Your task to perform on an android device: turn off improve location accuracy Image 0: 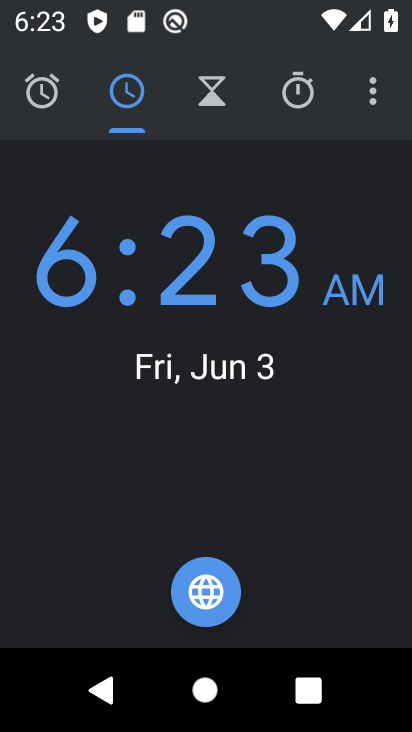
Step 0: press home button
Your task to perform on an android device: turn off improve location accuracy Image 1: 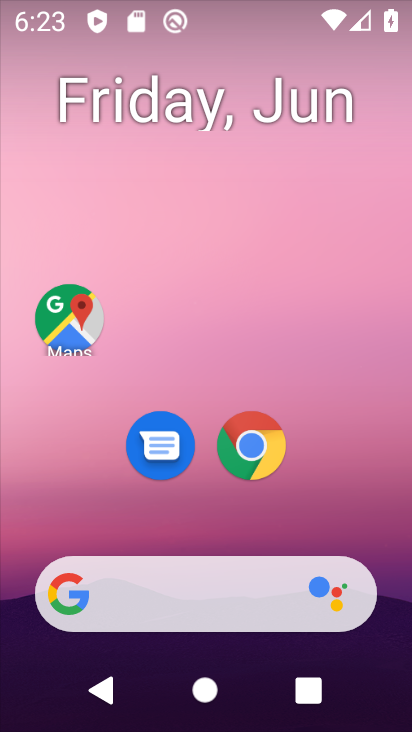
Step 1: drag from (209, 532) to (223, 45)
Your task to perform on an android device: turn off improve location accuracy Image 2: 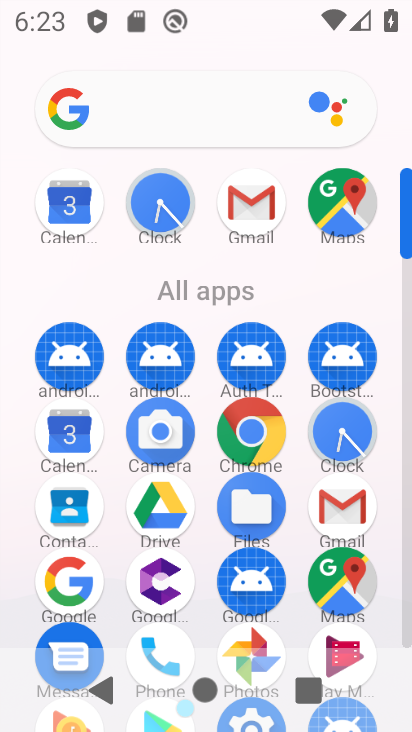
Step 2: click (349, 285)
Your task to perform on an android device: turn off improve location accuracy Image 3: 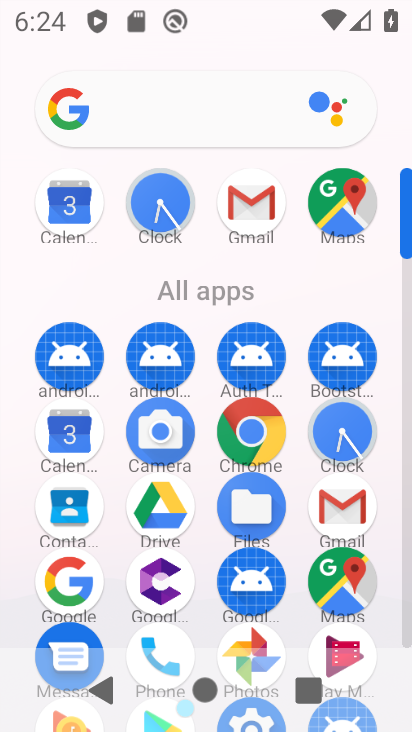
Step 3: drag from (277, 592) to (261, 372)
Your task to perform on an android device: turn off improve location accuracy Image 4: 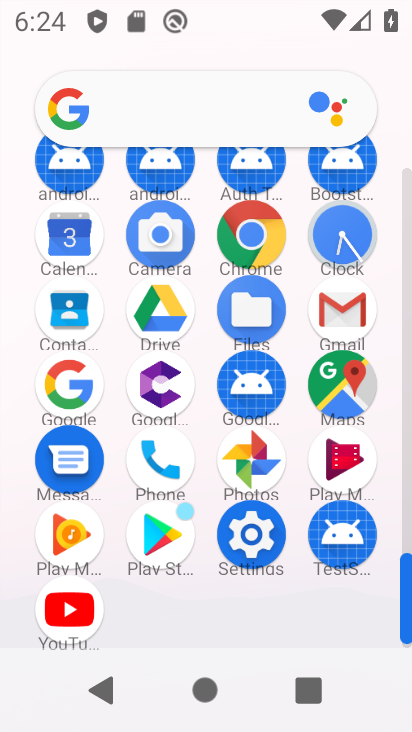
Step 4: click (248, 519)
Your task to perform on an android device: turn off improve location accuracy Image 5: 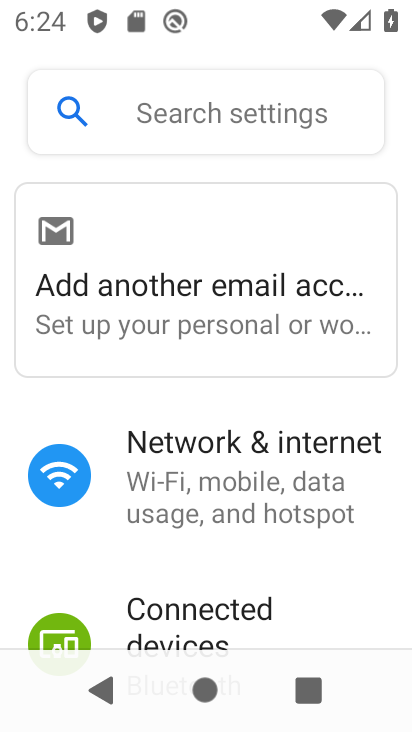
Step 5: drag from (251, 573) to (253, 198)
Your task to perform on an android device: turn off improve location accuracy Image 6: 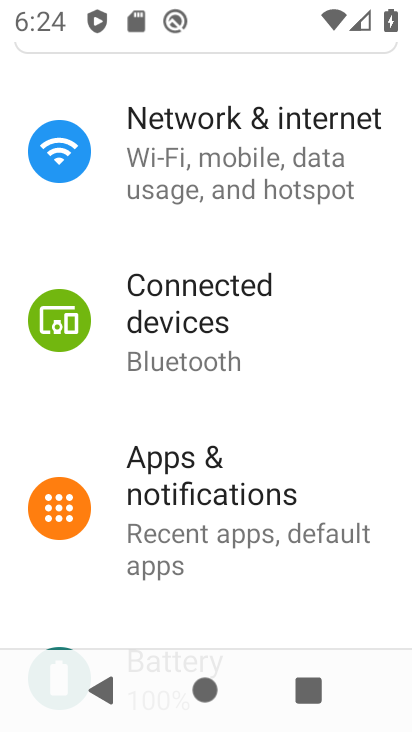
Step 6: drag from (219, 463) to (212, 173)
Your task to perform on an android device: turn off improve location accuracy Image 7: 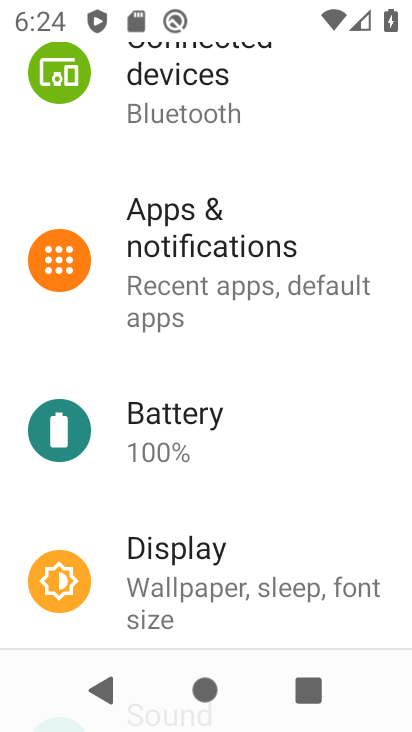
Step 7: drag from (189, 547) to (187, 409)
Your task to perform on an android device: turn off improve location accuracy Image 8: 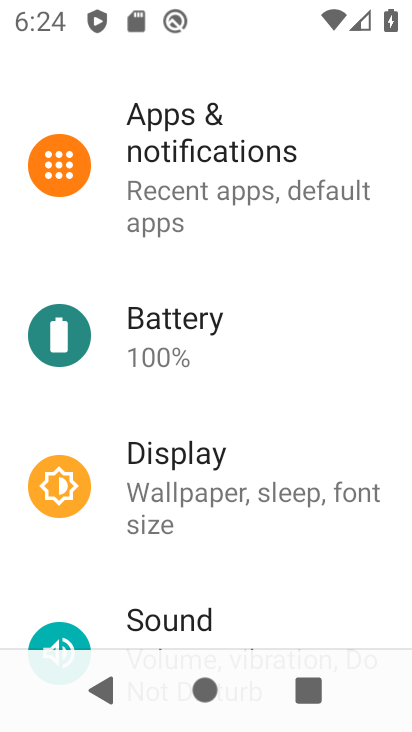
Step 8: drag from (244, 556) to (205, 310)
Your task to perform on an android device: turn off improve location accuracy Image 9: 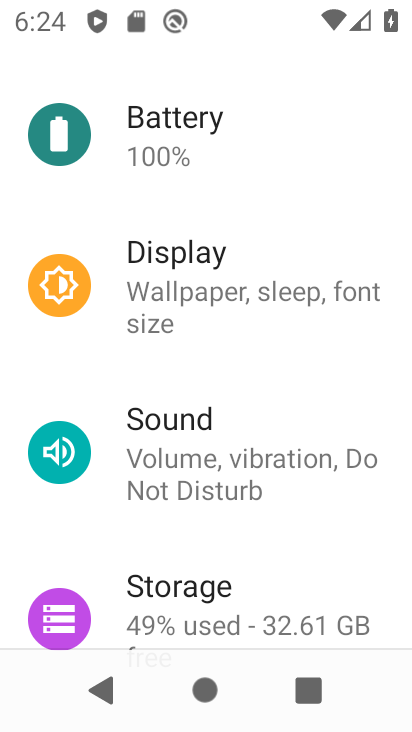
Step 9: drag from (215, 544) to (194, 277)
Your task to perform on an android device: turn off improve location accuracy Image 10: 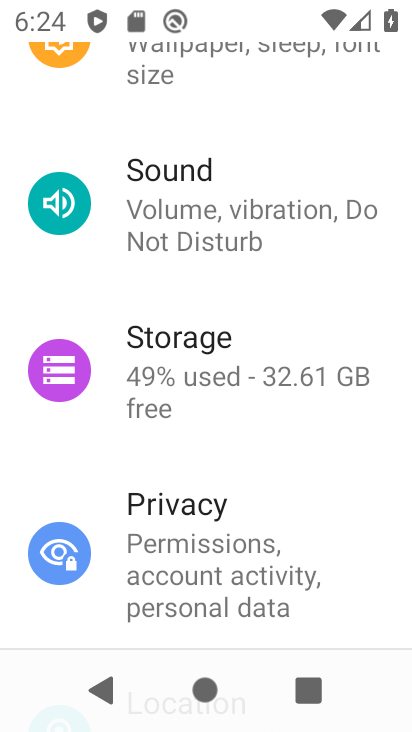
Step 10: drag from (187, 289) to (189, 573)
Your task to perform on an android device: turn off improve location accuracy Image 11: 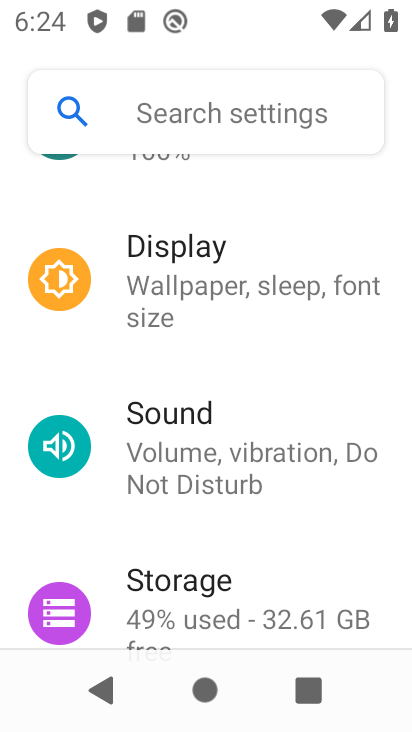
Step 11: drag from (189, 384) to (184, 731)
Your task to perform on an android device: turn off improve location accuracy Image 12: 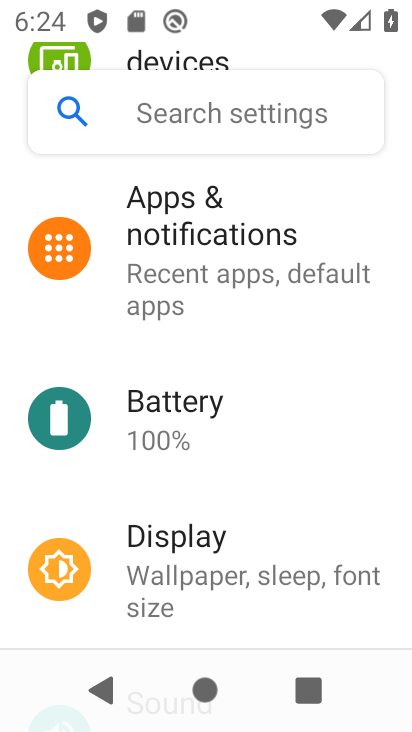
Step 12: drag from (217, 350) to (208, 606)
Your task to perform on an android device: turn off improve location accuracy Image 13: 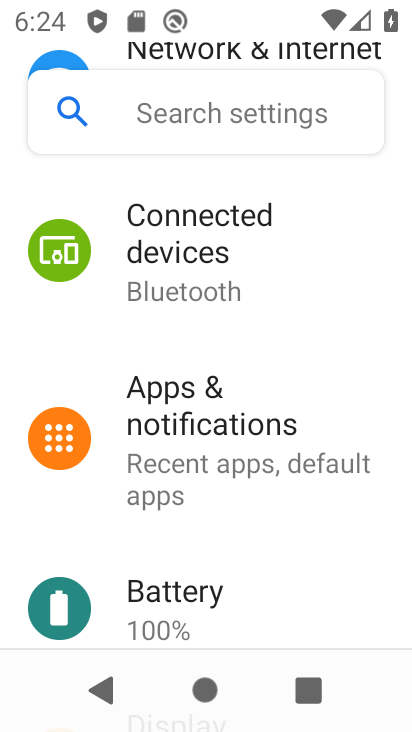
Step 13: drag from (183, 563) to (201, 332)
Your task to perform on an android device: turn off improve location accuracy Image 14: 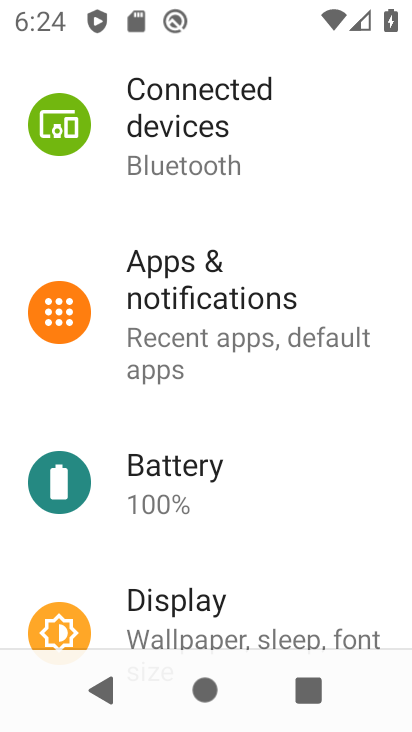
Step 14: drag from (180, 445) to (175, 320)
Your task to perform on an android device: turn off improve location accuracy Image 15: 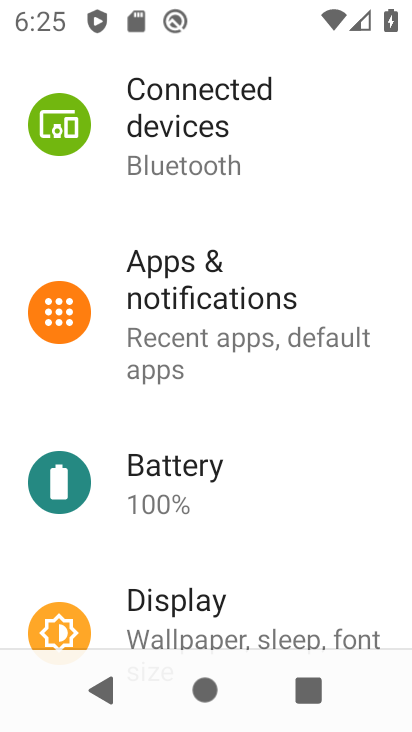
Step 15: drag from (207, 594) to (227, 316)
Your task to perform on an android device: turn off improve location accuracy Image 16: 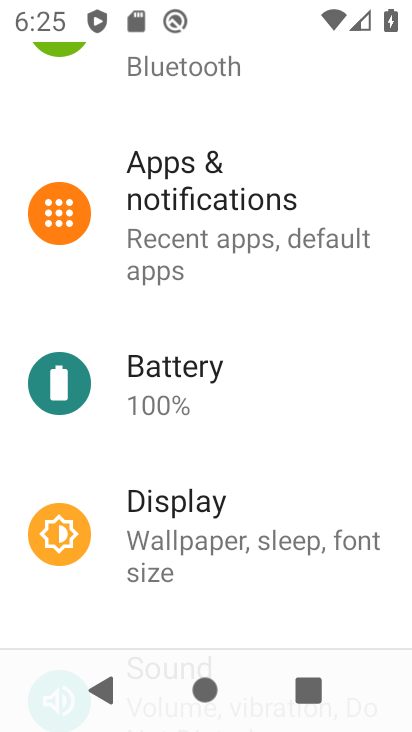
Step 16: drag from (207, 541) to (197, 230)
Your task to perform on an android device: turn off improve location accuracy Image 17: 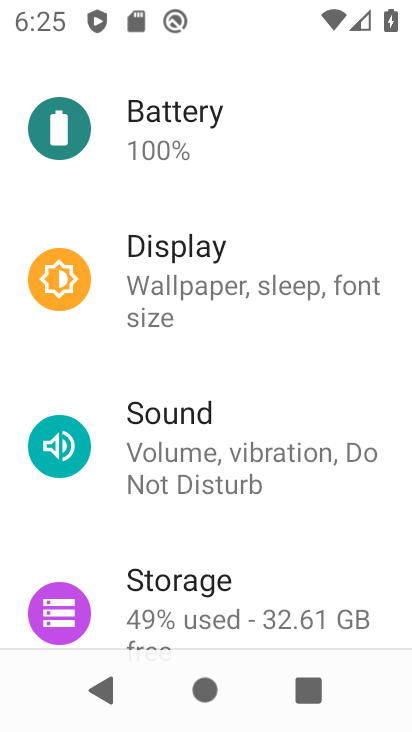
Step 17: drag from (179, 537) to (181, 191)
Your task to perform on an android device: turn off improve location accuracy Image 18: 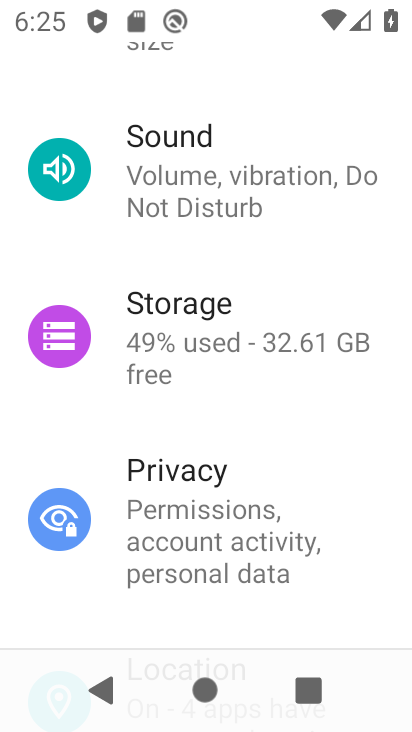
Step 18: drag from (154, 546) to (171, 329)
Your task to perform on an android device: turn off improve location accuracy Image 19: 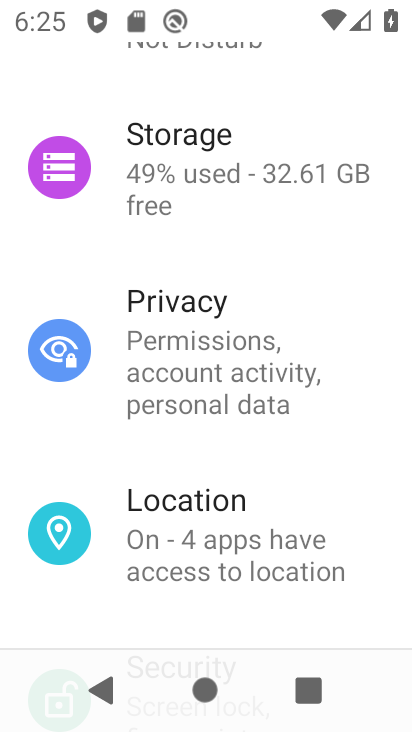
Step 19: drag from (216, 546) to (212, 284)
Your task to perform on an android device: turn off improve location accuracy Image 20: 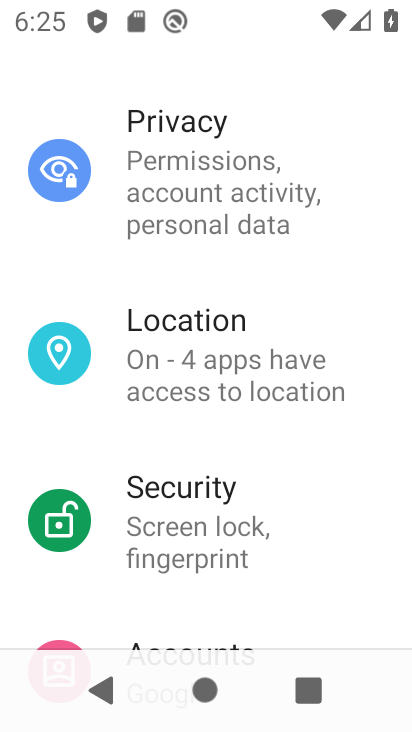
Step 20: drag from (244, 529) to (233, 199)
Your task to perform on an android device: turn off improve location accuracy Image 21: 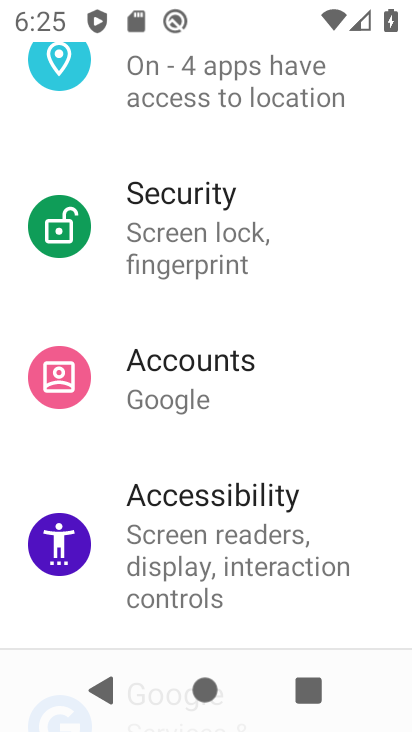
Step 21: drag from (194, 202) to (201, 415)
Your task to perform on an android device: turn off improve location accuracy Image 22: 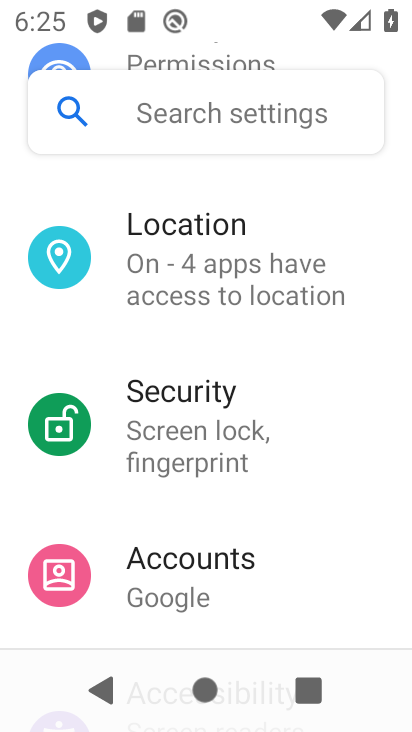
Step 22: click (173, 276)
Your task to perform on an android device: turn off improve location accuracy Image 23: 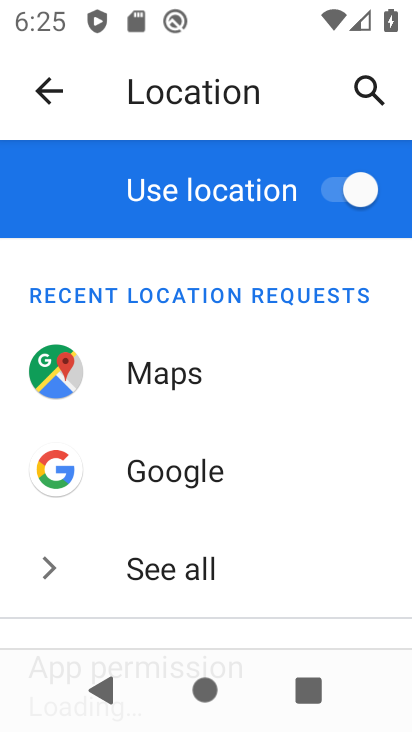
Step 23: drag from (141, 553) to (139, 294)
Your task to perform on an android device: turn off improve location accuracy Image 24: 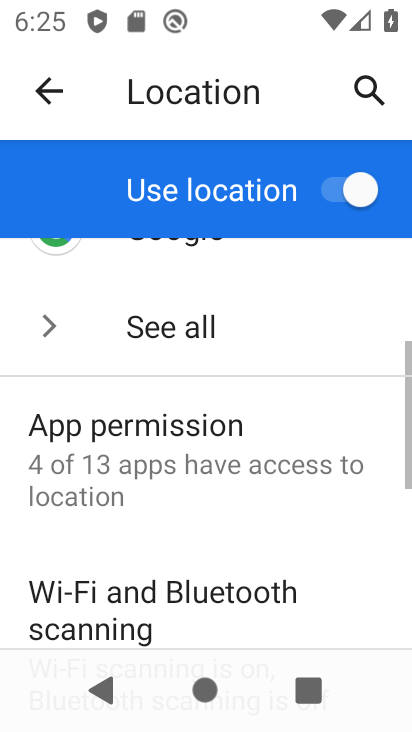
Step 24: drag from (177, 562) to (166, 365)
Your task to perform on an android device: turn off improve location accuracy Image 25: 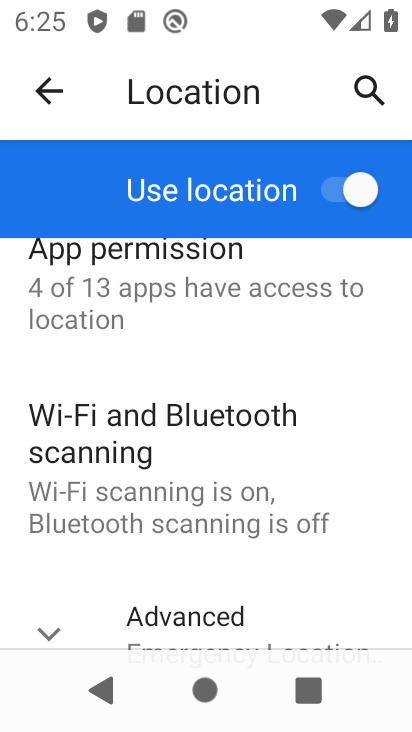
Step 25: click (181, 621)
Your task to perform on an android device: turn off improve location accuracy Image 26: 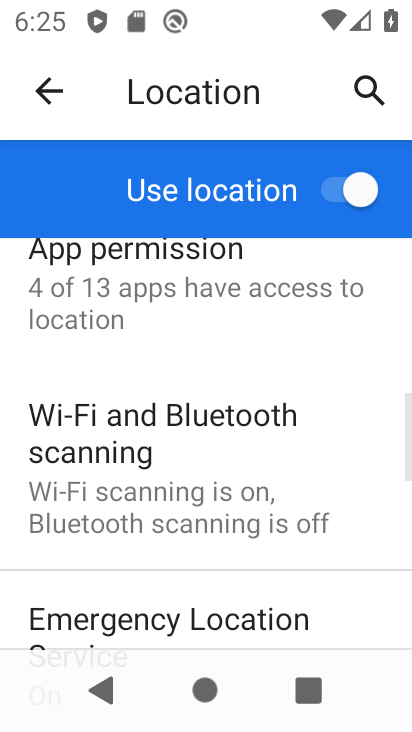
Step 26: drag from (187, 551) to (159, 277)
Your task to perform on an android device: turn off improve location accuracy Image 27: 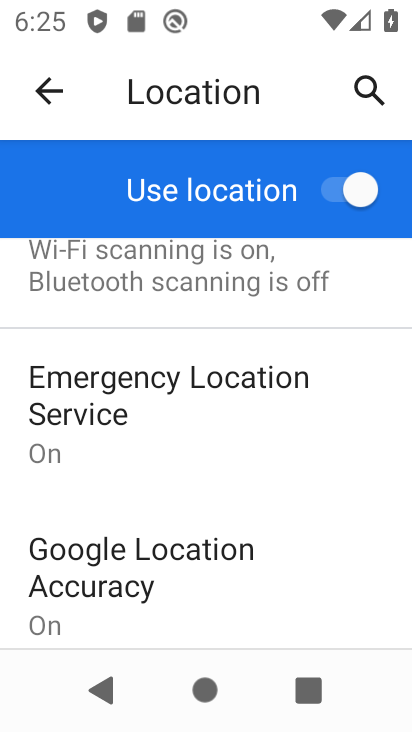
Step 27: drag from (170, 468) to (158, 310)
Your task to perform on an android device: turn off improve location accuracy Image 28: 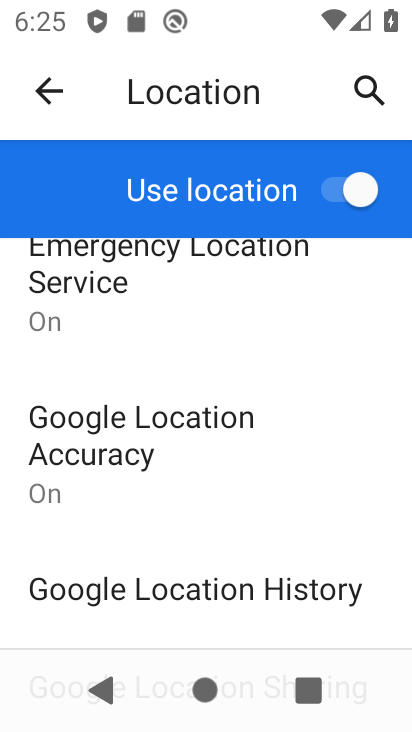
Step 28: click (150, 466)
Your task to perform on an android device: turn off improve location accuracy Image 29: 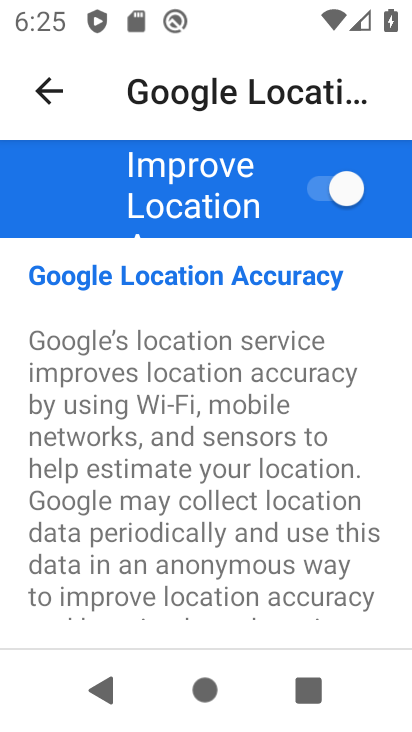
Step 29: click (307, 204)
Your task to perform on an android device: turn off improve location accuracy Image 30: 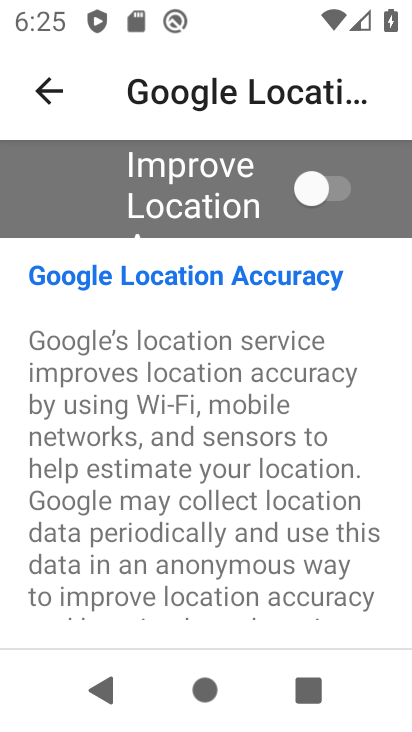
Step 30: task complete